Your task to perform on an android device: turn vacation reply on in the gmail app Image 0: 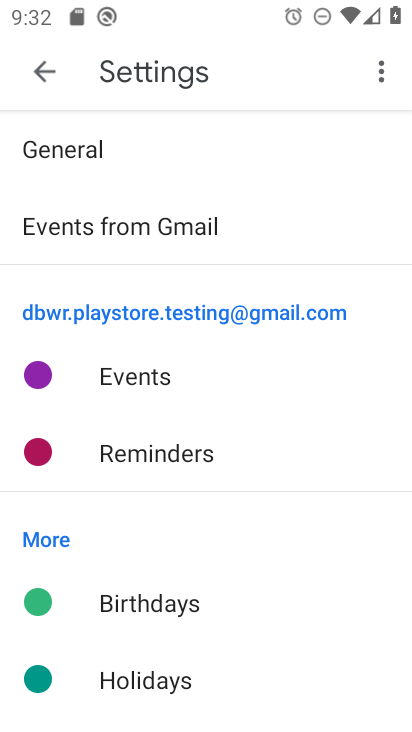
Step 0: press home button
Your task to perform on an android device: turn vacation reply on in the gmail app Image 1: 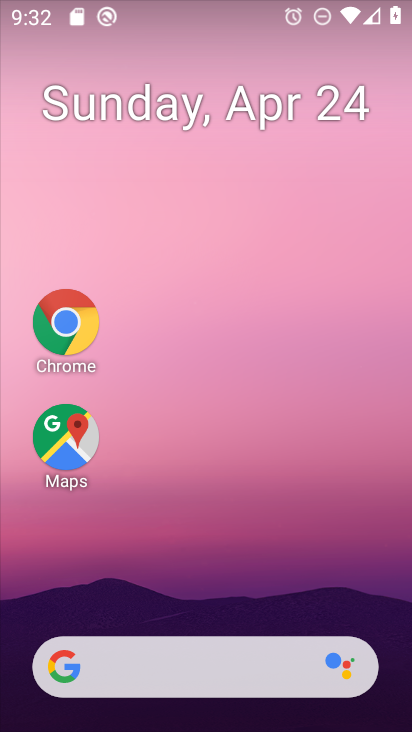
Step 1: drag from (221, 531) to (236, 19)
Your task to perform on an android device: turn vacation reply on in the gmail app Image 2: 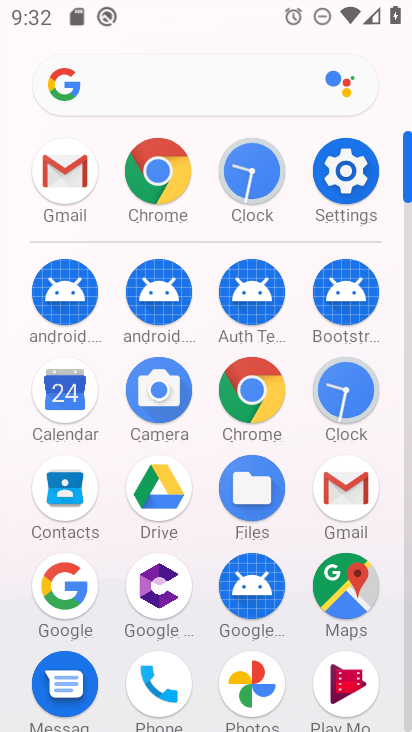
Step 2: click (345, 485)
Your task to perform on an android device: turn vacation reply on in the gmail app Image 3: 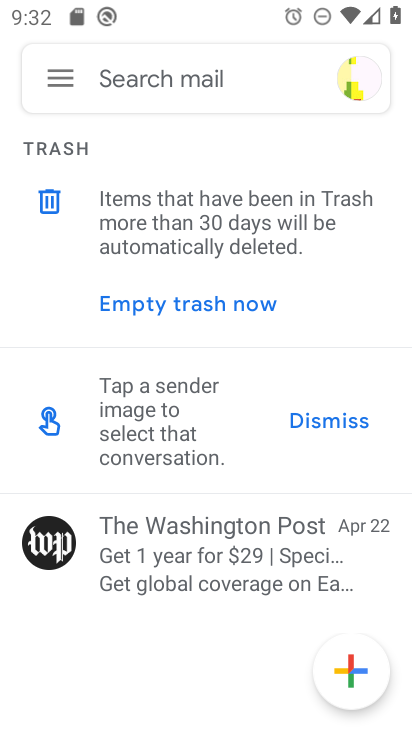
Step 3: click (56, 73)
Your task to perform on an android device: turn vacation reply on in the gmail app Image 4: 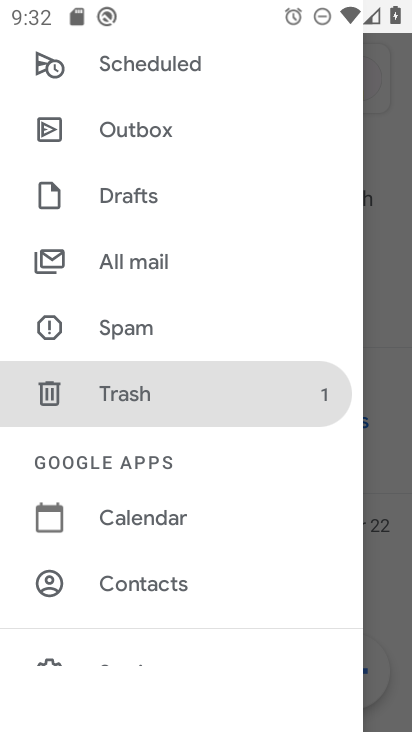
Step 4: drag from (209, 129) to (201, 81)
Your task to perform on an android device: turn vacation reply on in the gmail app Image 5: 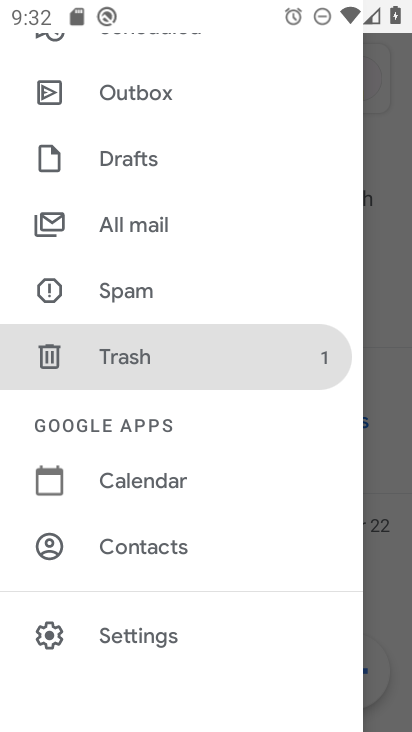
Step 5: click (147, 636)
Your task to perform on an android device: turn vacation reply on in the gmail app Image 6: 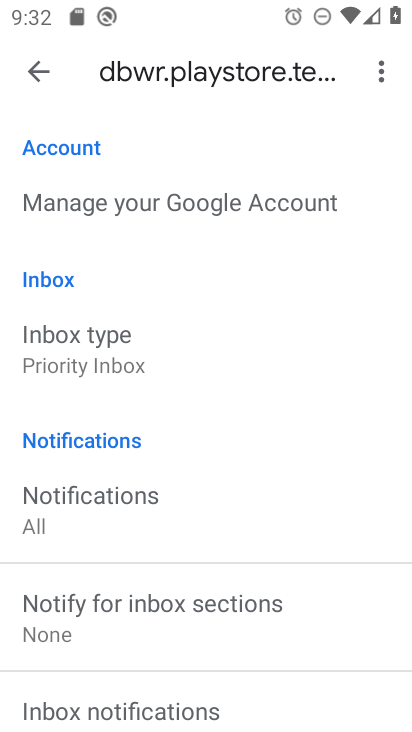
Step 6: drag from (251, 530) to (236, 112)
Your task to perform on an android device: turn vacation reply on in the gmail app Image 7: 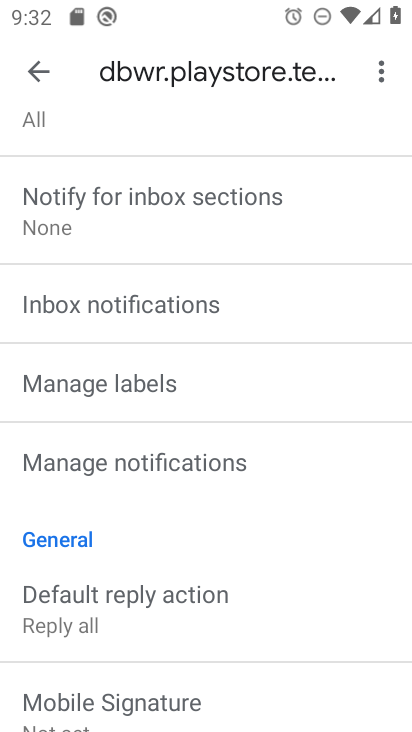
Step 7: drag from (284, 585) to (249, 170)
Your task to perform on an android device: turn vacation reply on in the gmail app Image 8: 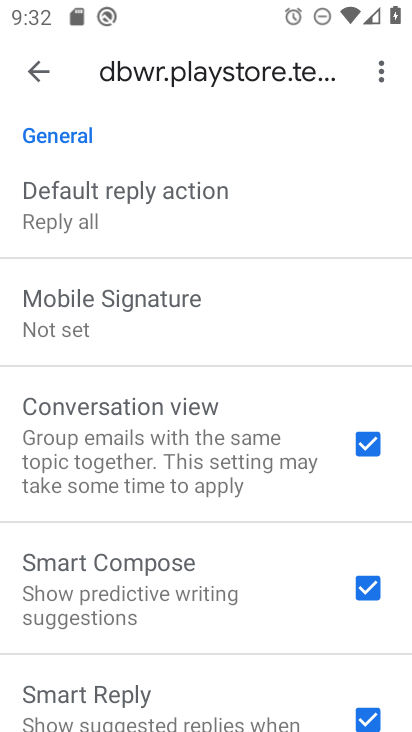
Step 8: drag from (270, 575) to (239, 139)
Your task to perform on an android device: turn vacation reply on in the gmail app Image 9: 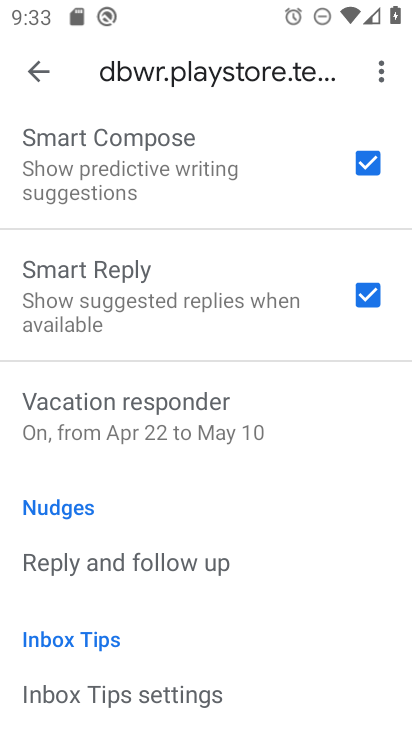
Step 9: click (127, 405)
Your task to perform on an android device: turn vacation reply on in the gmail app Image 10: 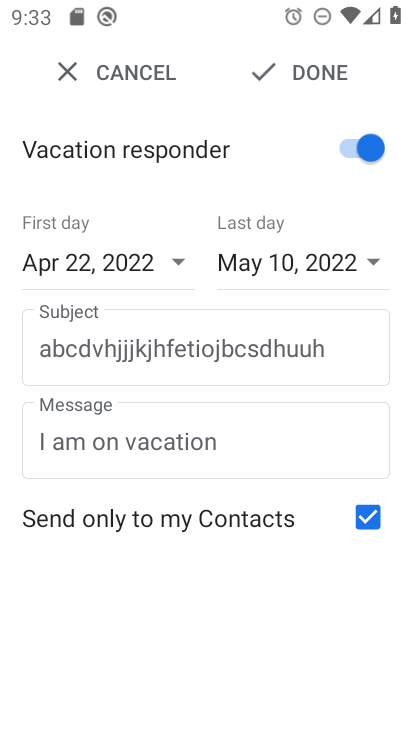
Step 10: task complete